Your task to perform on an android device: Open Google Maps and go to "Timeline" Image 0: 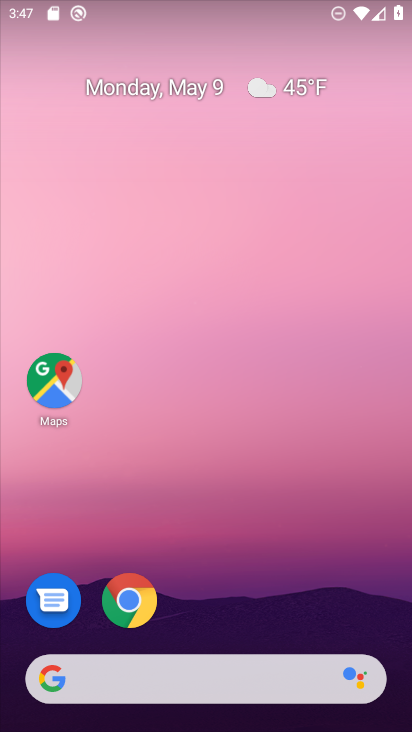
Step 0: drag from (226, 554) to (227, 59)
Your task to perform on an android device: Open Google Maps and go to "Timeline" Image 1: 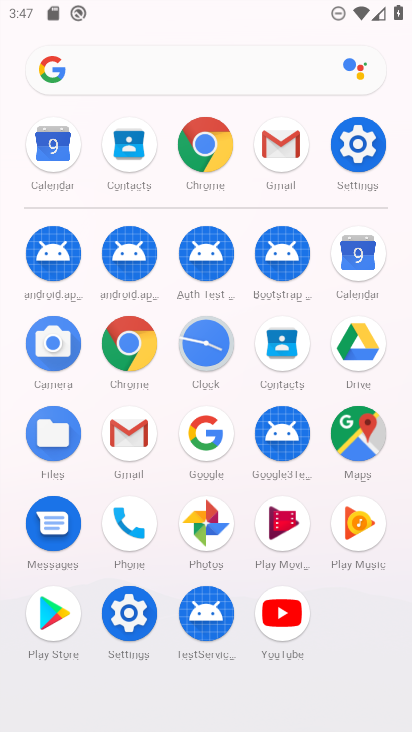
Step 1: drag from (1, 580) to (14, 241)
Your task to perform on an android device: Open Google Maps and go to "Timeline" Image 2: 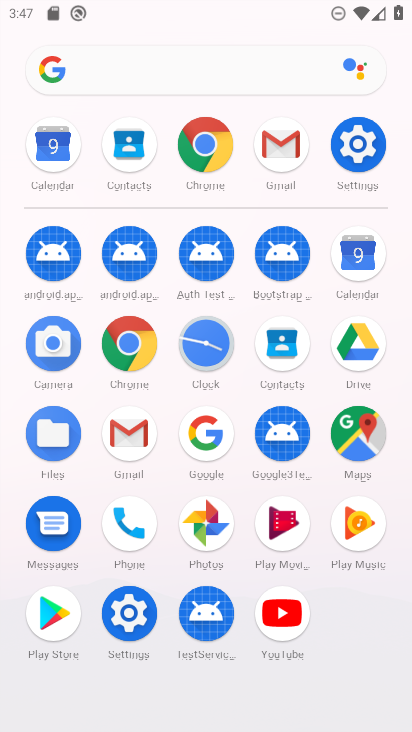
Step 2: drag from (8, 549) to (12, 234)
Your task to perform on an android device: Open Google Maps and go to "Timeline" Image 3: 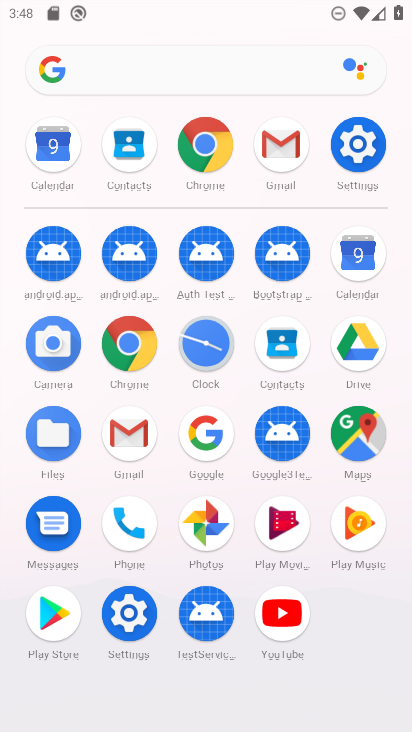
Step 3: click (357, 439)
Your task to perform on an android device: Open Google Maps and go to "Timeline" Image 4: 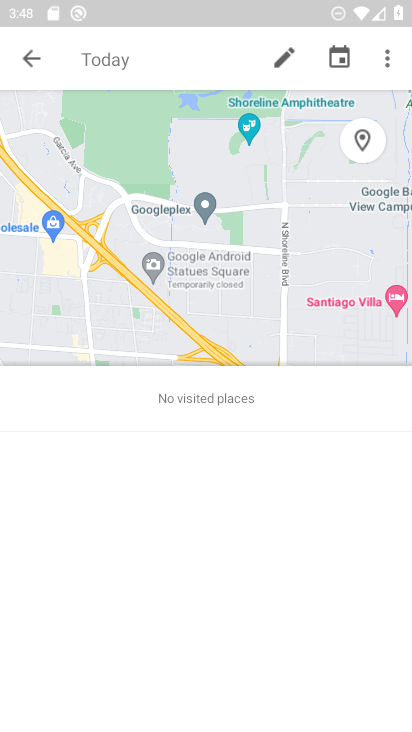
Step 4: click (29, 56)
Your task to perform on an android device: Open Google Maps and go to "Timeline" Image 5: 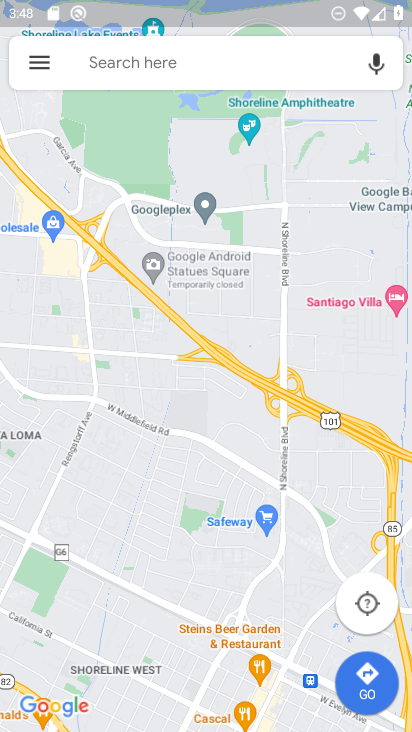
Step 5: click (39, 53)
Your task to perform on an android device: Open Google Maps and go to "Timeline" Image 6: 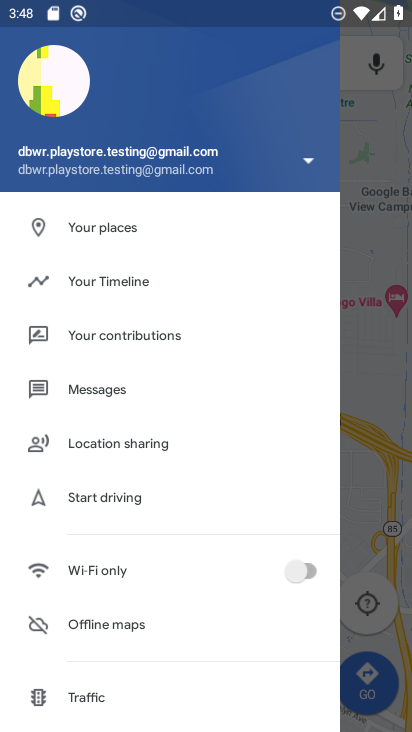
Step 6: drag from (208, 587) to (212, 169)
Your task to perform on an android device: Open Google Maps and go to "Timeline" Image 7: 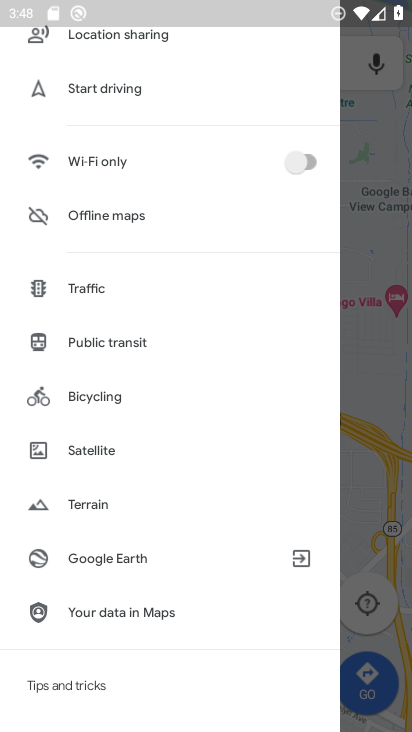
Step 7: drag from (196, 547) to (215, 96)
Your task to perform on an android device: Open Google Maps and go to "Timeline" Image 8: 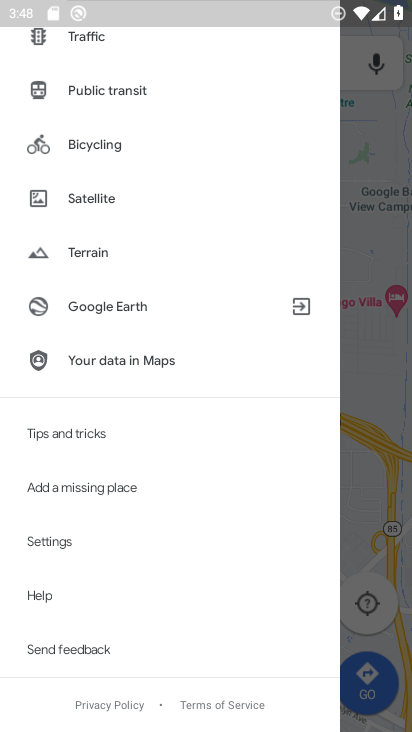
Step 8: drag from (189, 520) to (173, 214)
Your task to perform on an android device: Open Google Maps and go to "Timeline" Image 9: 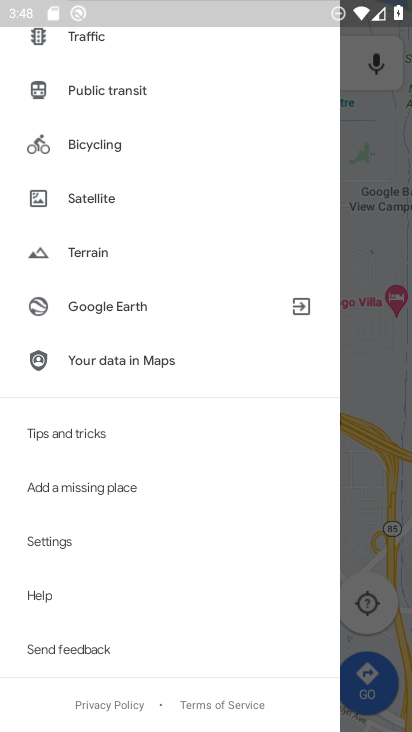
Step 9: drag from (171, 136) to (177, 622)
Your task to perform on an android device: Open Google Maps and go to "Timeline" Image 10: 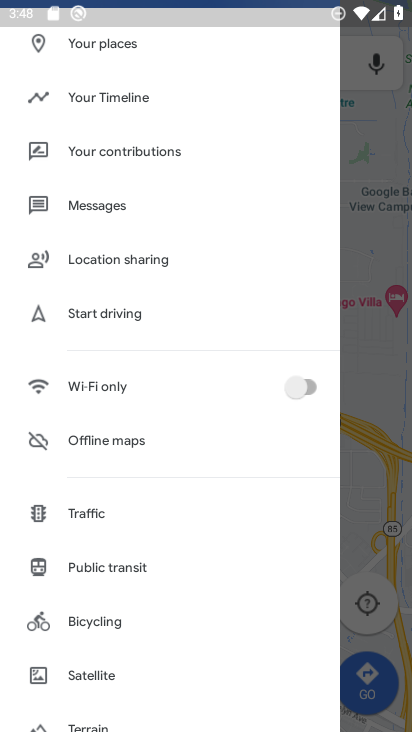
Step 10: click (145, 84)
Your task to perform on an android device: Open Google Maps and go to "Timeline" Image 11: 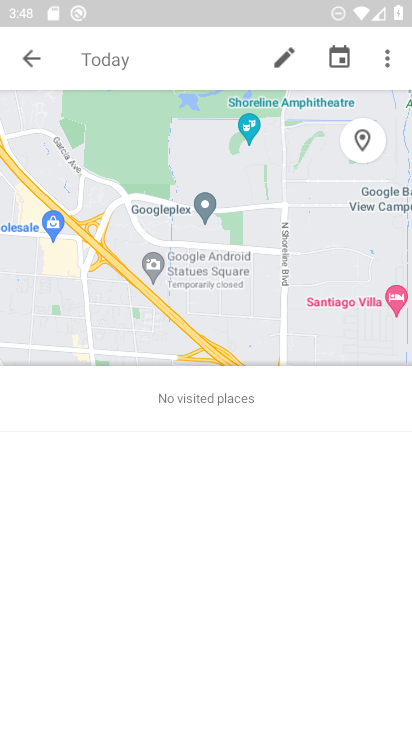
Step 11: task complete